Your task to perform on an android device: Show the shopping cart on ebay. Image 0: 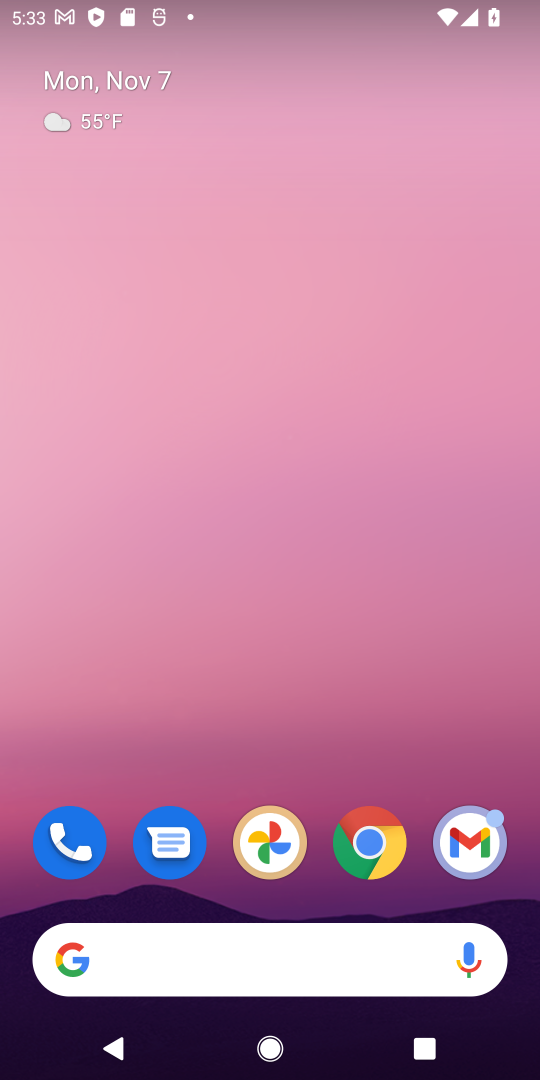
Step 0: click (359, 854)
Your task to perform on an android device: Show the shopping cart on ebay. Image 1: 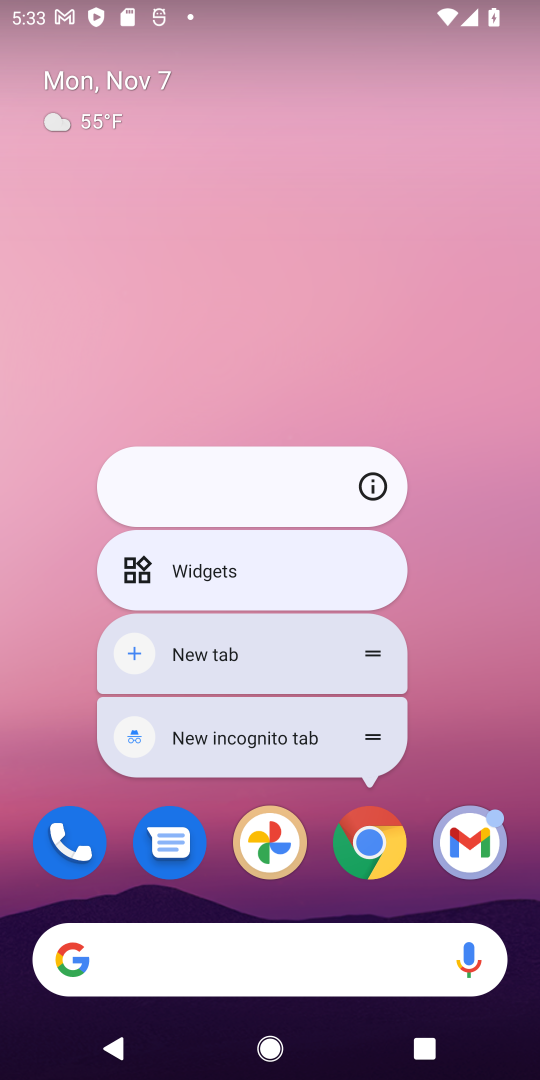
Step 1: click (372, 840)
Your task to perform on an android device: Show the shopping cart on ebay. Image 2: 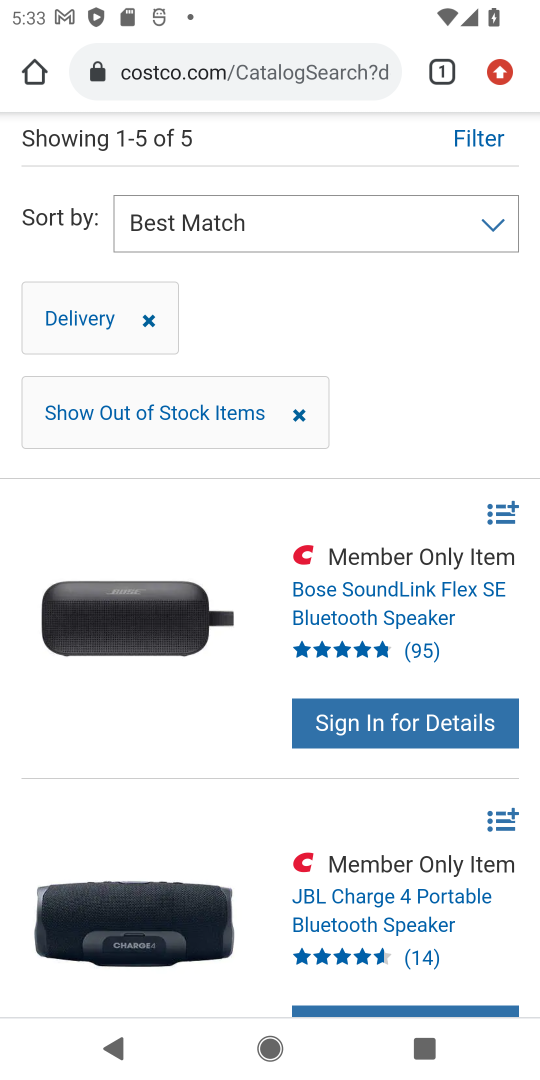
Step 2: click (297, 54)
Your task to perform on an android device: Show the shopping cart on ebay. Image 3: 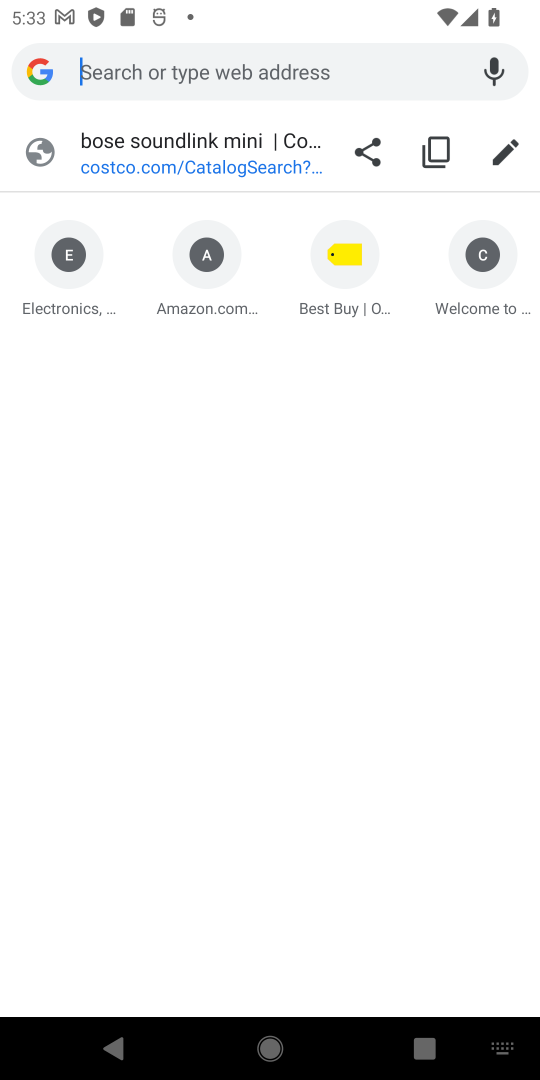
Step 3: click (81, 302)
Your task to perform on an android device: Show the shopping cart on ebay. Image 4: 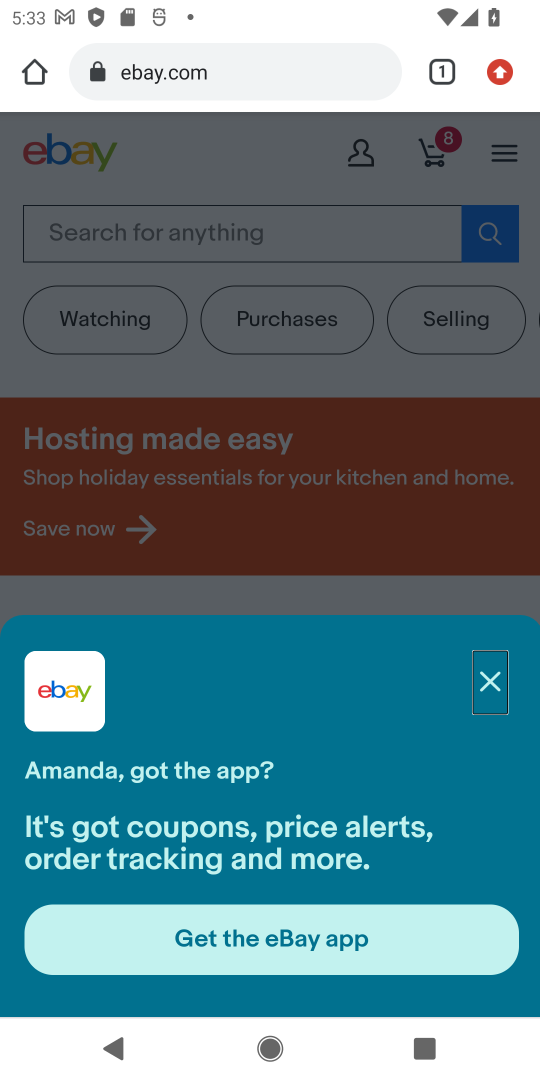
Step 4: click (492, 684)
Your task to perform on an android device: Show the shopping cart on ebay. Image 5: 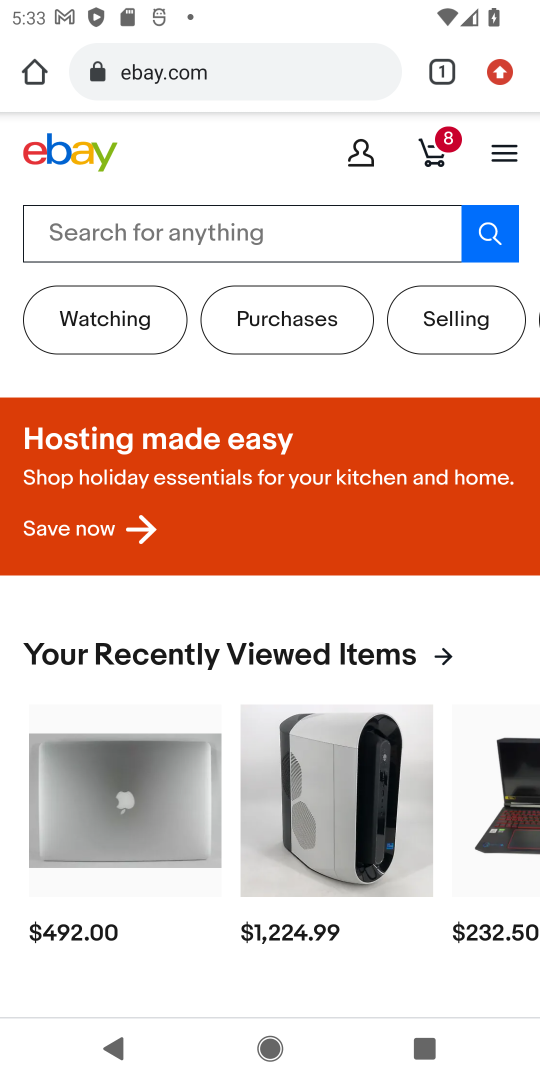
Step 5: click (431, 150)
Your task to perform on an android device: Show the shopping cart on ebay. Image 6: 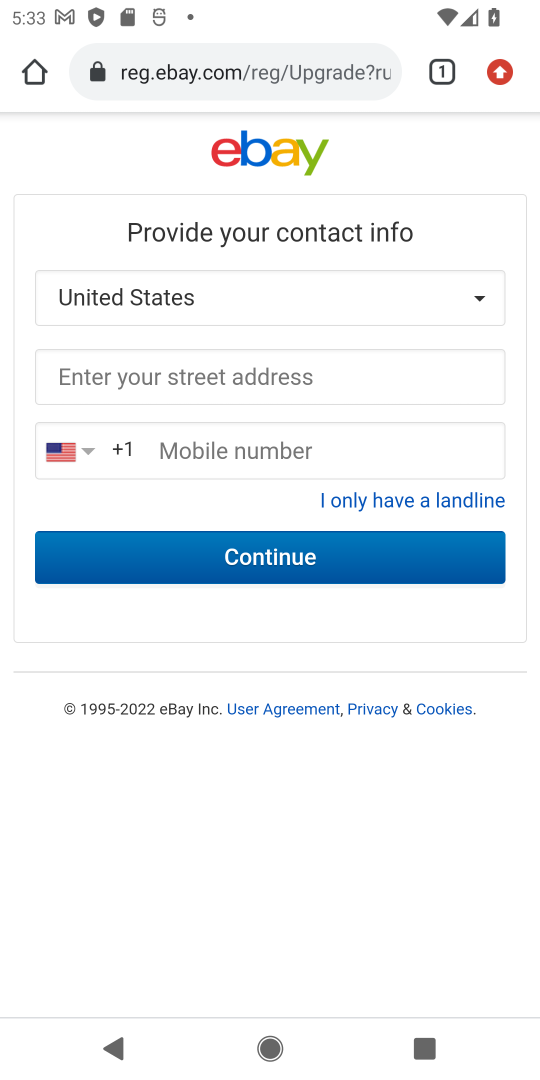
Step 6: drag from (431, 151) to (207, 937)
Your task to perform on an android device: Show the shopping cart on ebay. Image 7: 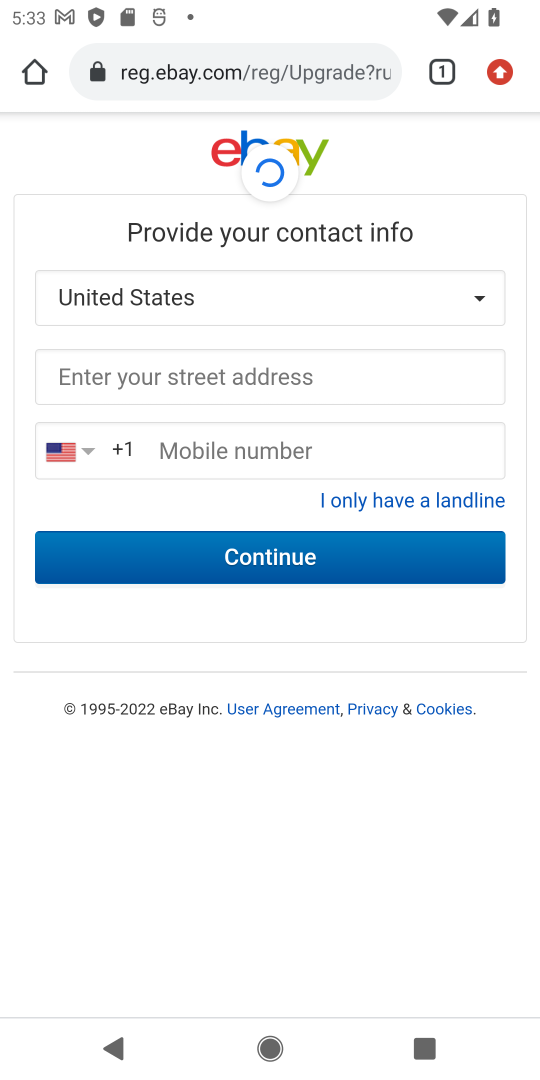
Step 7: drag from (222, 896) to (377, 252)
Your task to perform on an android device: Show the shopping cart on ebay. Image 8: 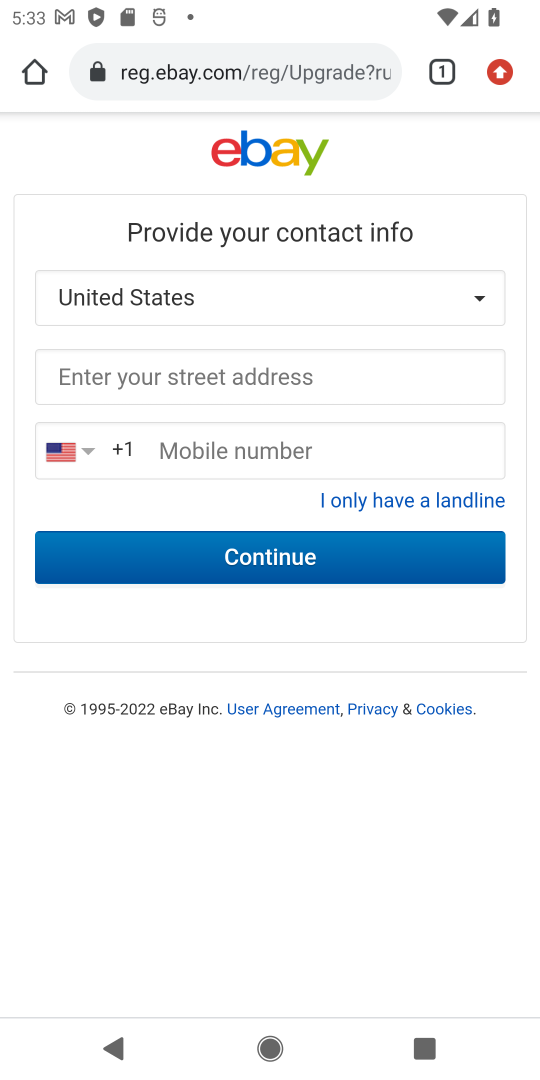
Step 8: press back button
Your task to perform on an android device: Show the shopping cart on ebay. Image 9: 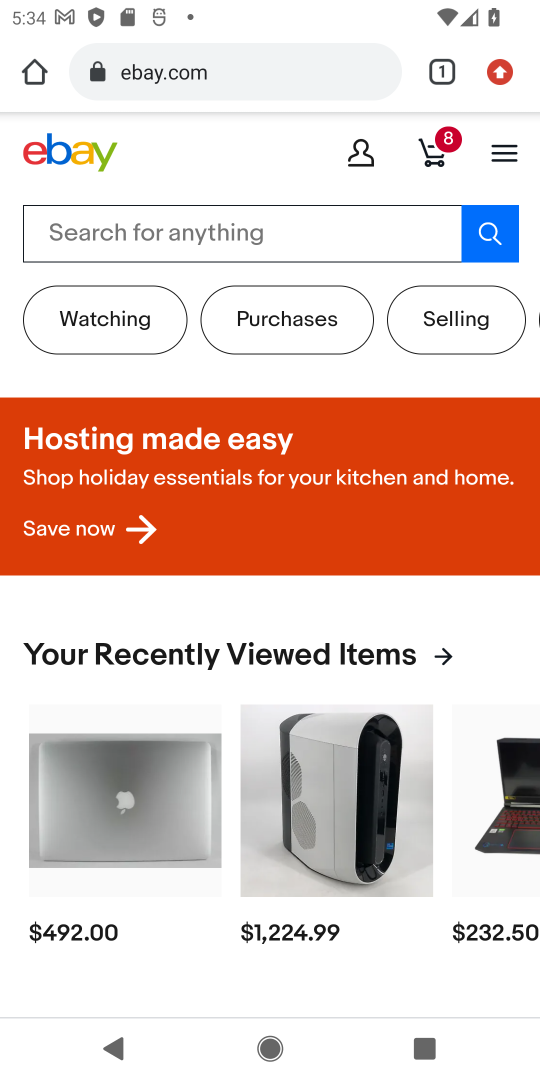
Step 9: drag from (155, 751) to (295, 294)
Your task to perform on an android device: Show the shopping cart on ebay. Image 10: 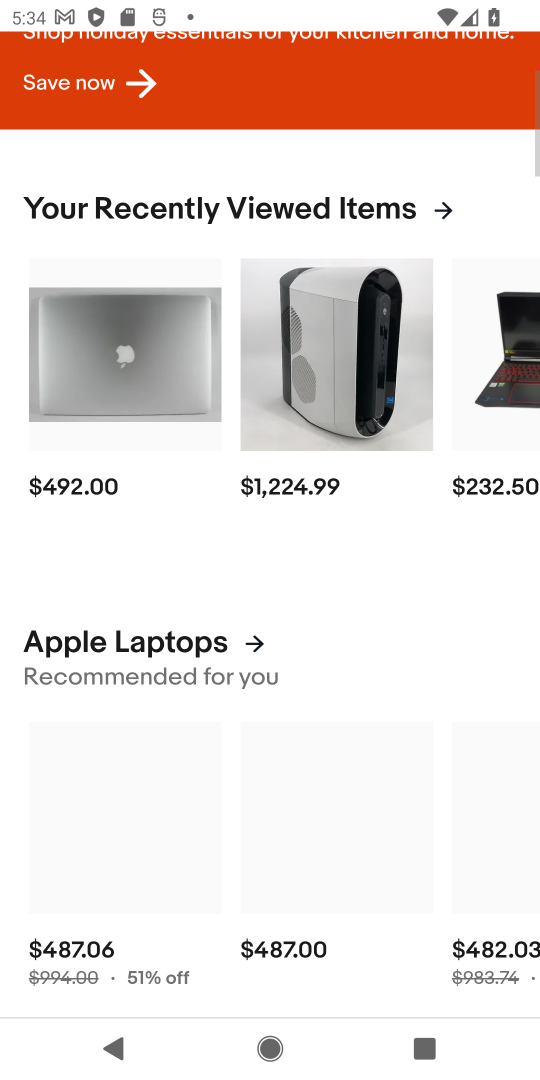
Step 10: drag from (295, 296) to (210, 663)
Your task to perform on an android device: Show the shopping cart on ebay. Image 11: 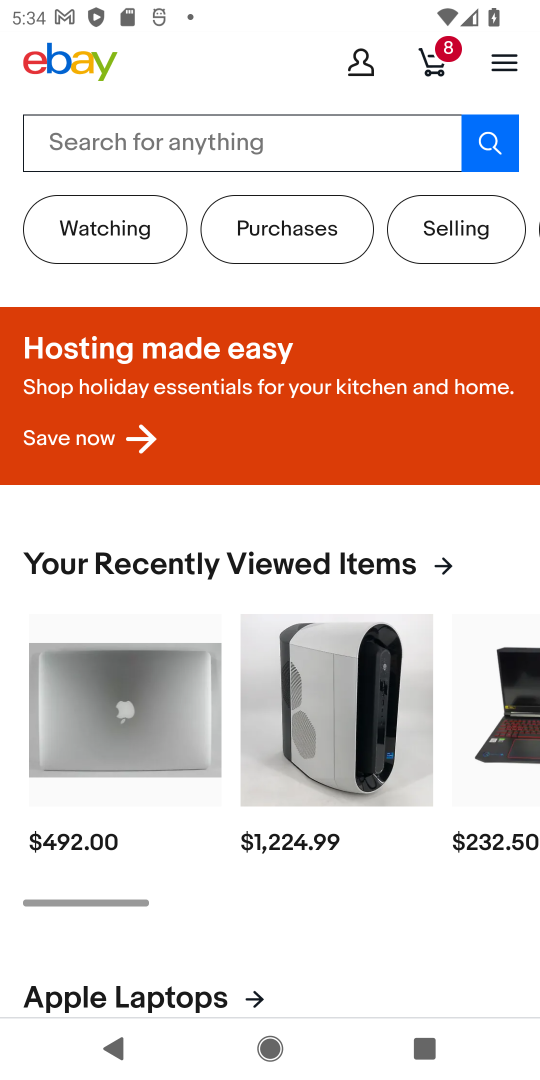
Step 11: click (428, 69)
Your task to perform on an android device: Show the shopping cart on ebay. Image 12: 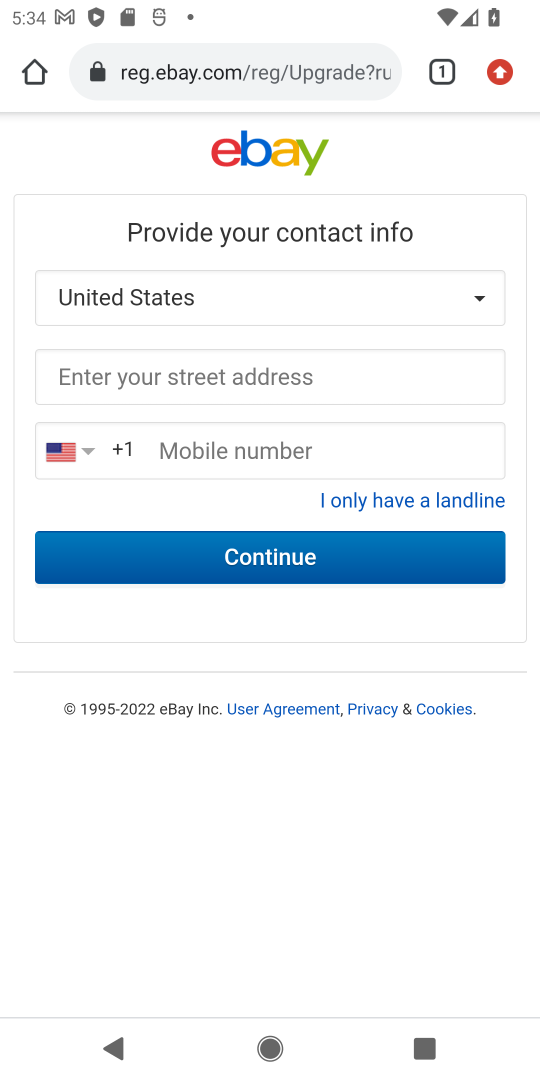
Step 12: task complete